Your task to perform on an android device: What's the weather? Image 0: 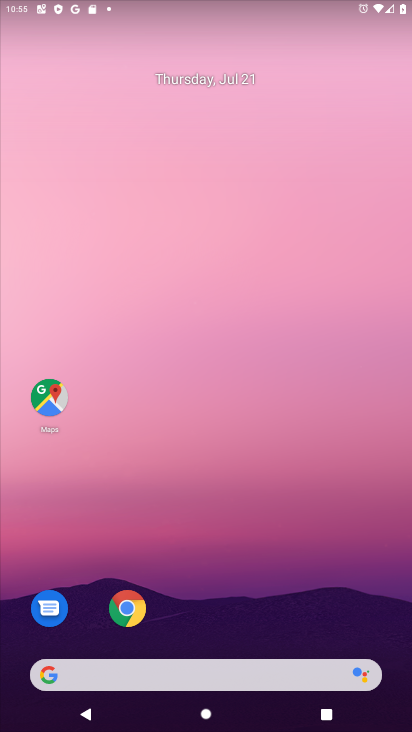
Step 0: drag from (352, 640) to (213, 27)
Your task to perform on an android device: What's the weather? Image 1: 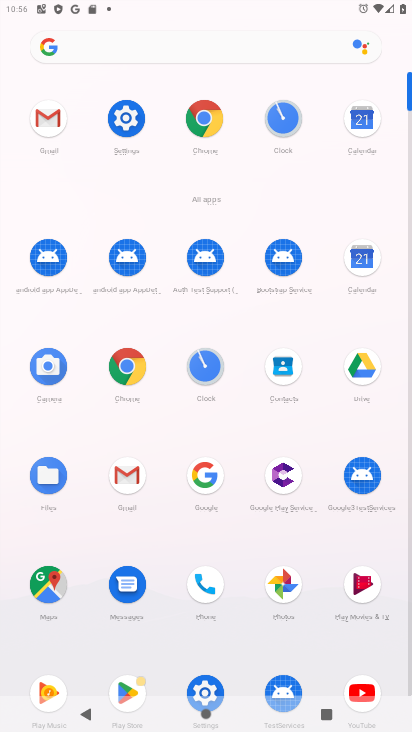
Step 1: click (219, 495)
Your task to perform on an android device: What's the weather? Image 2: 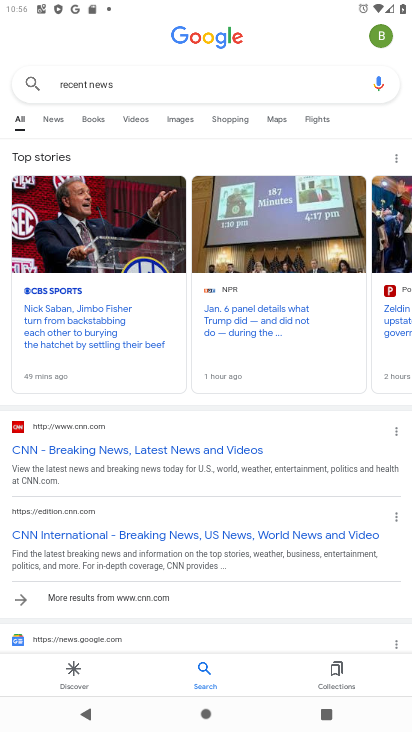
Step 2: press back button
Your task to perform on an android device: What's the weather? Image 3: 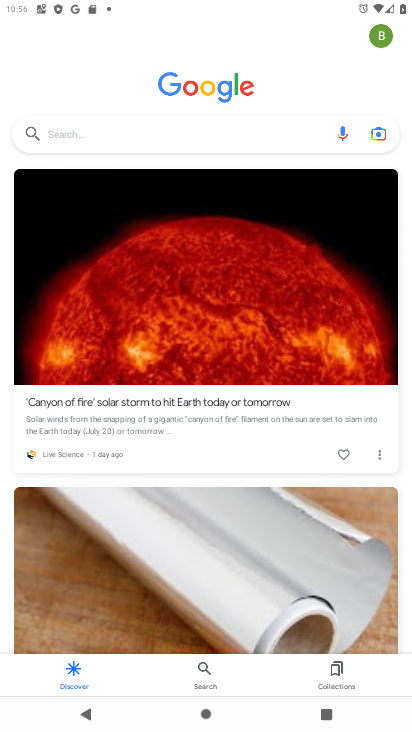
Step 3: click (100, 135)
Your task to perform on an android device: What's the weather? Image 4: 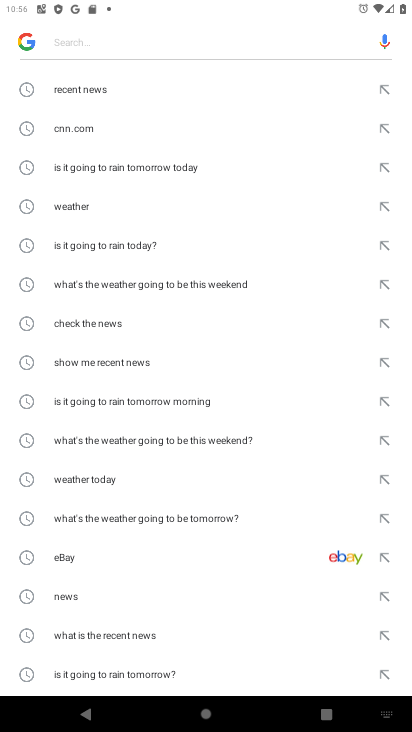
Step 4: type "What's the weather?"
Your task to perform on an android device: What's the weather? Image 5: 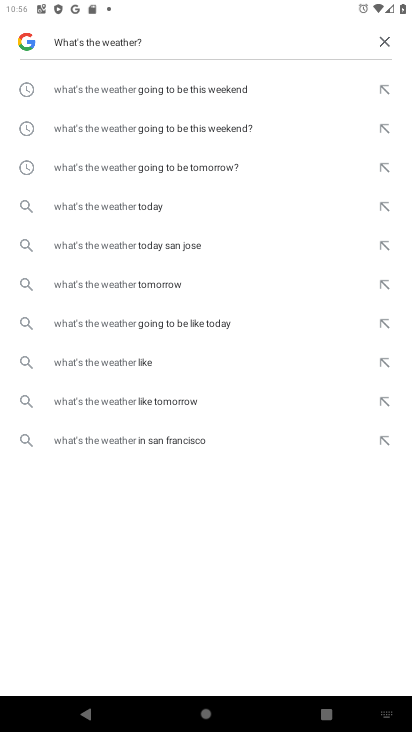
Step 5: click (118, 210)
Your task to perform on an android device: What's the weather? Image 6: 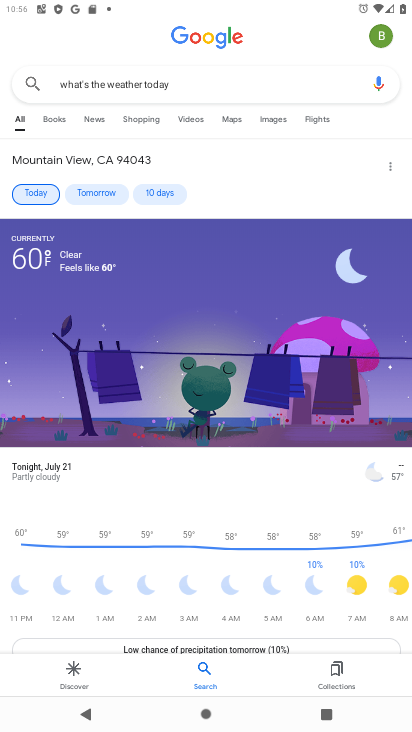
Step 6: task complete